Your task to perform on an android device: open the mobile data screen to see how much data has been used Image 0: 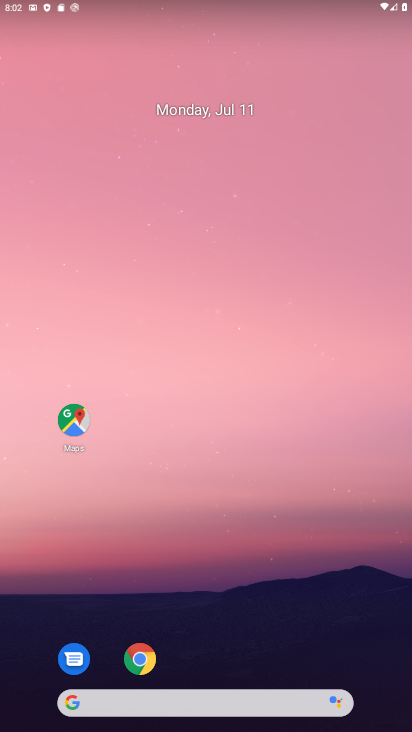
Step 0: drag from (183, 666) to (206, 279)
Your task to perform on an android device: open the mobile data screen to see how much data has been used Image 1: 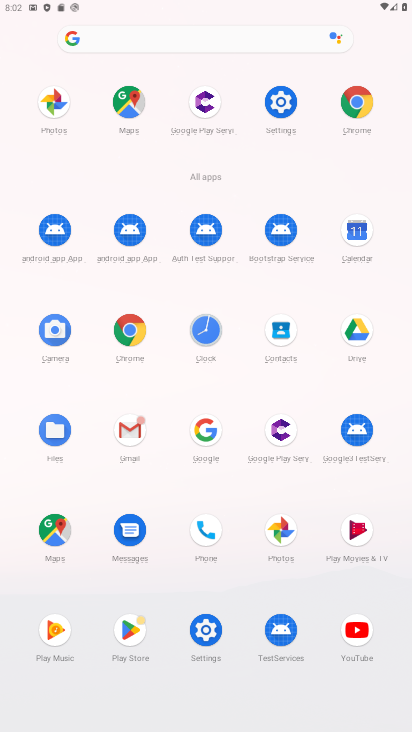
Step 1: click (282, 119)
Your task to perform on an android device: open the mobile data screen to see how much data has been used Image 2: 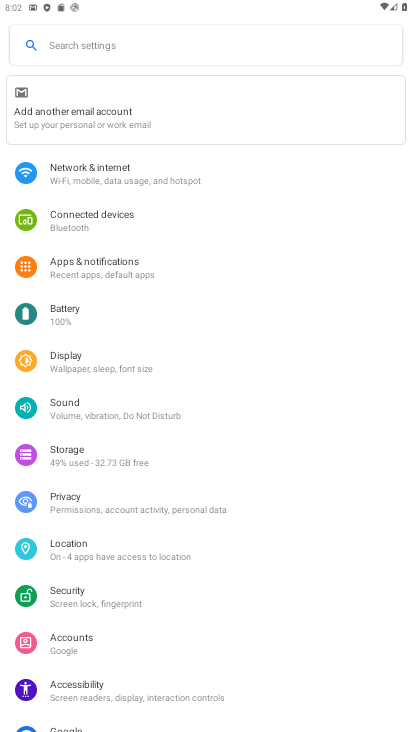
Step 2: click (135, 174)
Your task to perform on an android device: open the mobile data screen to see how much data has been used Image 3: 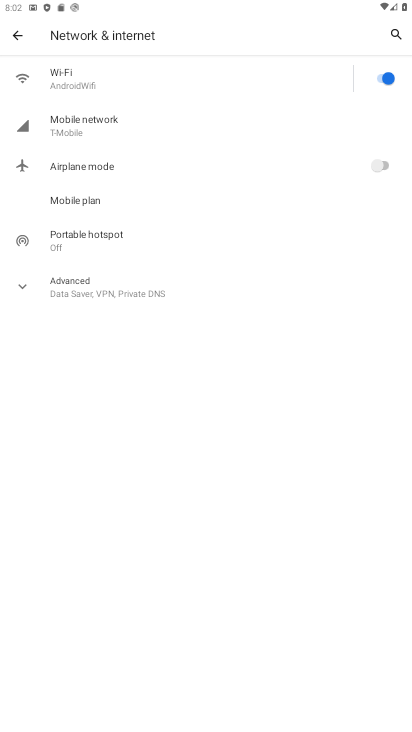
Step 3: click (116, 128)
Your task to perform on an android device: open the mobile data screen to see how much data has been used Image 4: 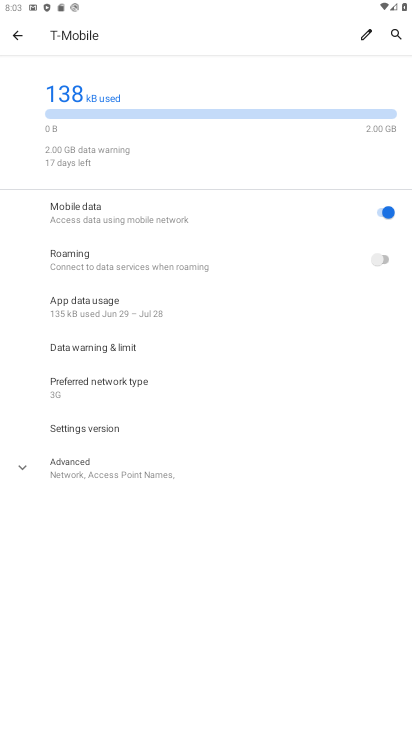
Step 4: click (178, 310)
Your task to perform on an android device: open the mobile data screen to see how much data has been used Image 5: 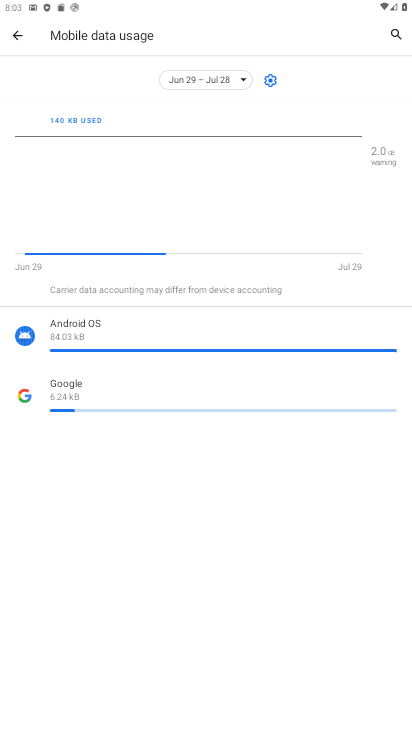
Step 5: task complete